Your task to perform on an android device: Open calendar and show me the third week of next month Image 0: 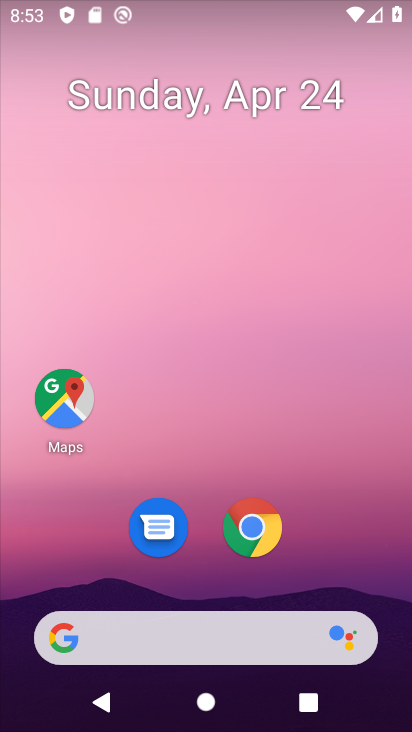
Step 0: drag from (189, 362) to (217, 107)
Your task to perform on an android device: Open calendar and show me the third week of next month Image 1: 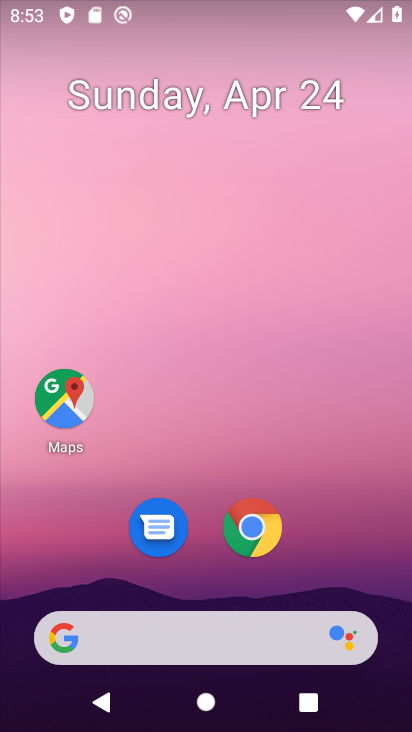
Step 1: drag from (154, 580) to (218, 139)
Your task to perform on an android device: Open calendar and show me the third week of next month Image 2: 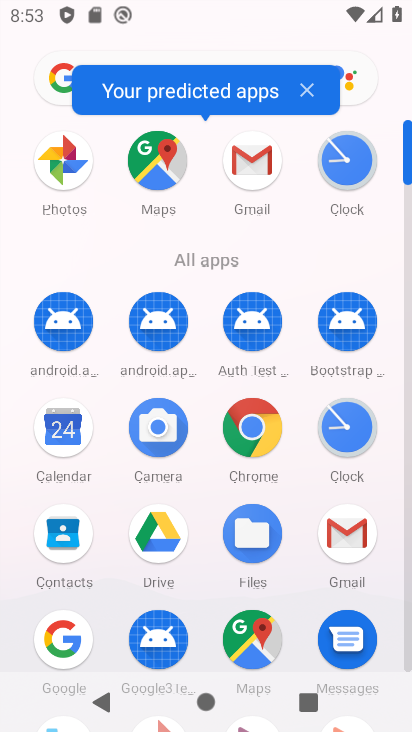
Step 2: click (75, 442)
Your task to perform on an android device: Open calendar and show me the third week of next month Image 3: 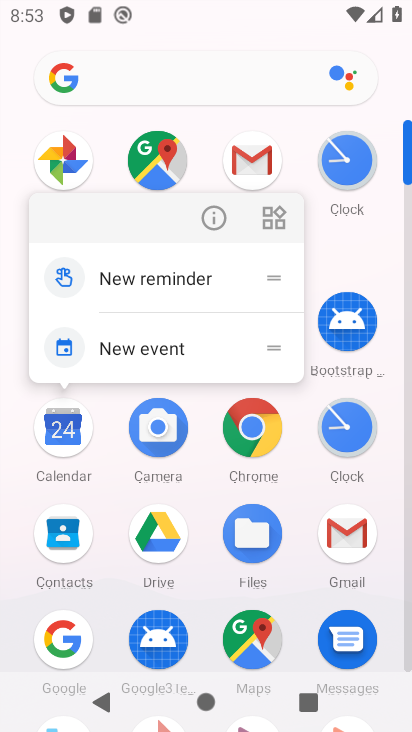
Step 3: click (60, 423)
Your task to perform on an android device: Open calendar and show me the third week of next month Image 4: 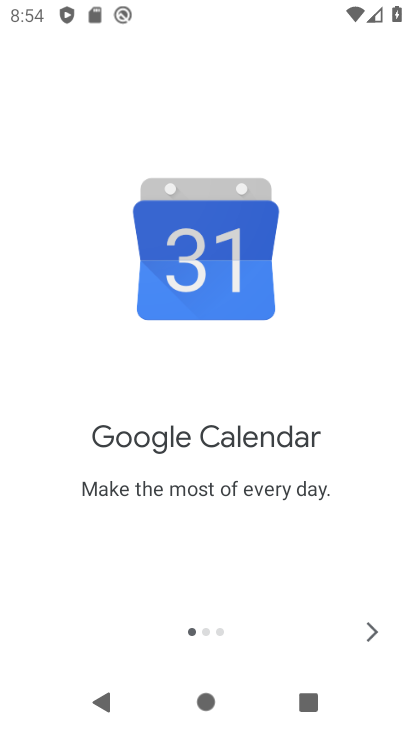
Step 4: click (362, 623)
Your task to perform on an android device: Open calendar and show me the third week of next month Image 5: 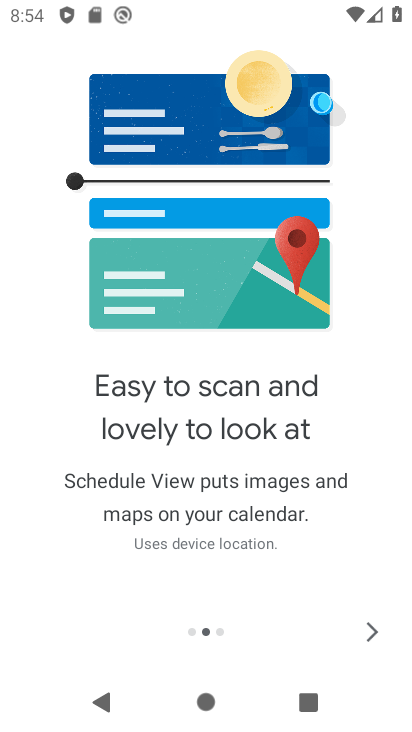
Step 5: click (363, 623)
Your task to perform on an android device: Open calendar and show me the third week of next month Image 6: 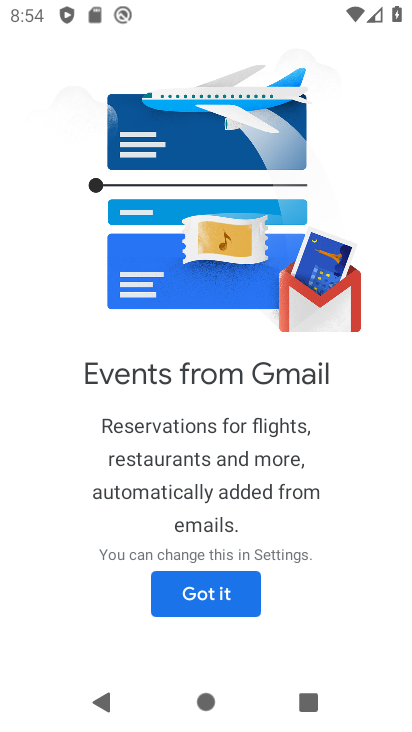
Step 6: click (233, 594)
Your task to perform on an android device: Open calendar and show me the third week of next month Image 7: 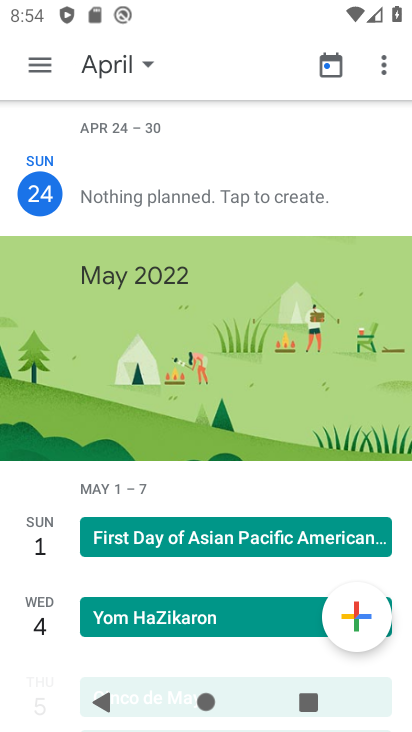
Step 7: click (134, 71)
Your task to perform on an android device: Open calendar and show me the third week of next month Image 8: 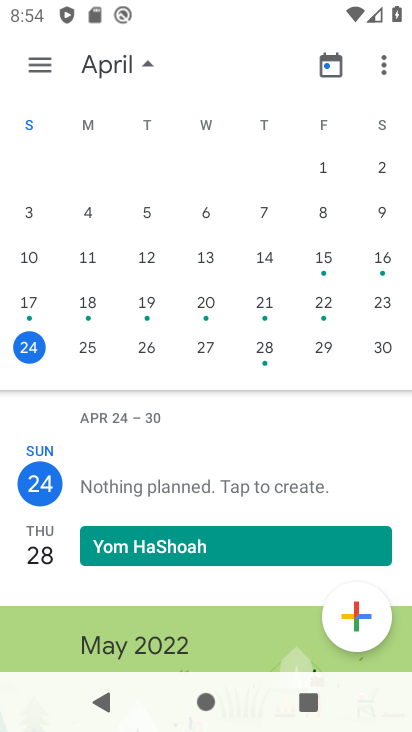
Step 8: drag from (369, 263) to (8, 226)
Your task to perform on an android device: Open calendar and show me the third week of next month Image 9: 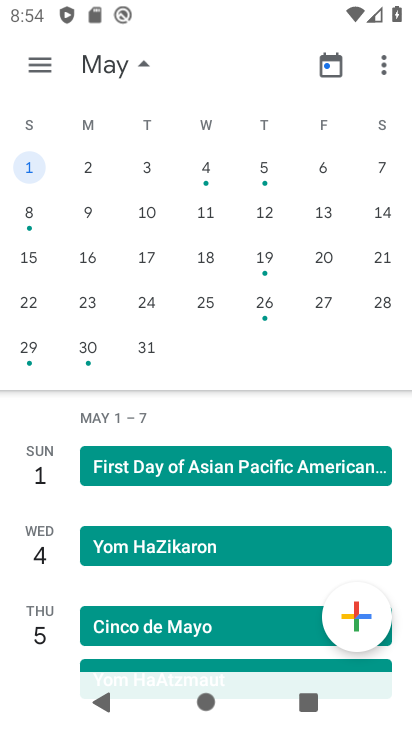
Step 9: click (89, 259)
Your task to perform on an android device: Open calendar and show me the third week of next month Image 10: 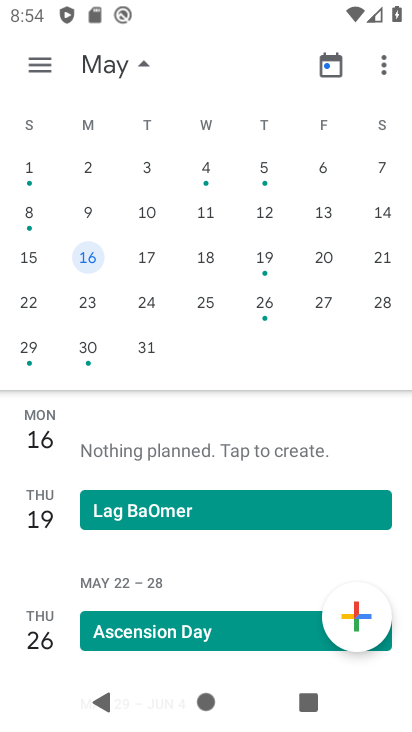
Step 10: task complete